Your task to perform on an android device: open app "Adobe Acrobat Reader: Edit PDF" (install if not already installed) and enter user name: "arthritis@inbox.com" and password: "scythes" Image 0: 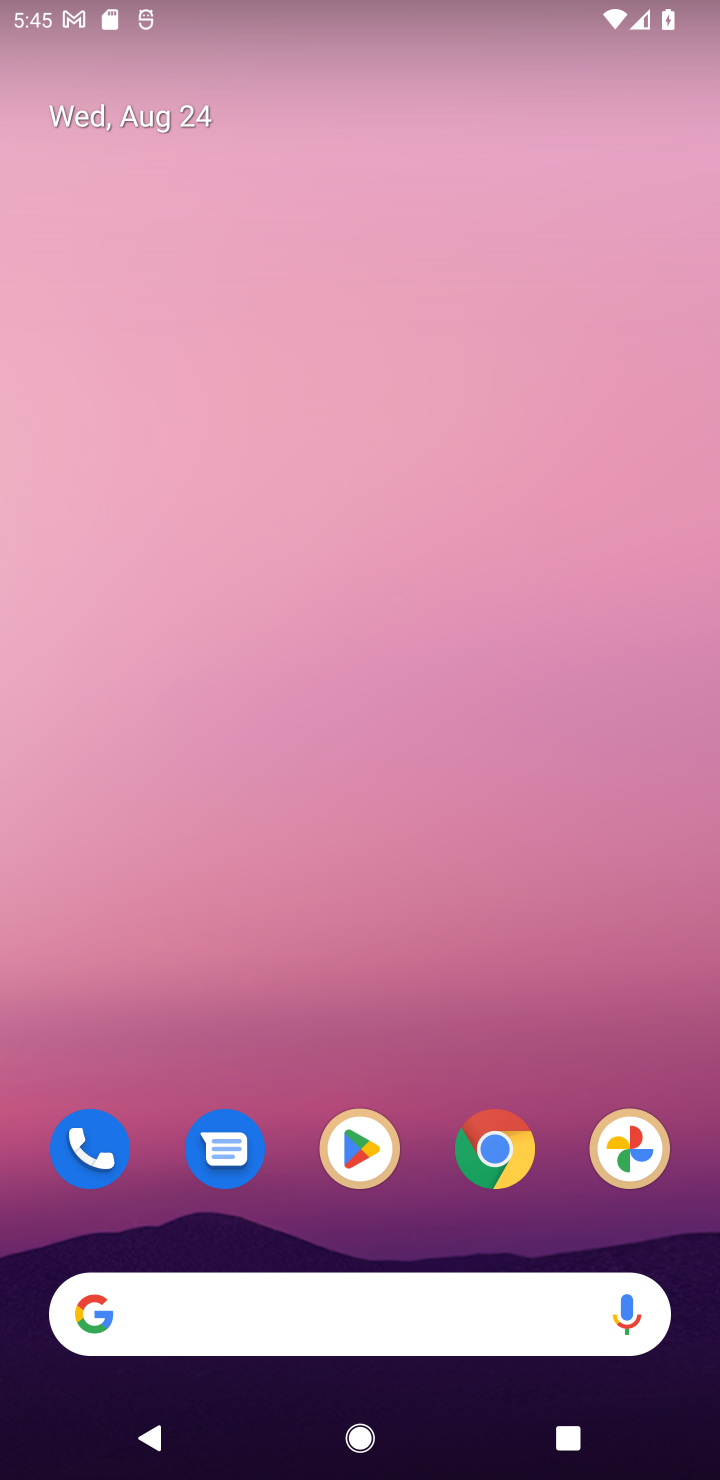
Step 0: click (363, 1150)
Your task to perform on an android device: open app "Adobe Acrobat Reader: Edit PDF" (install if not already installed) and enter user name: "arthritis@inbox.com" and password: "scythes" Image 1: 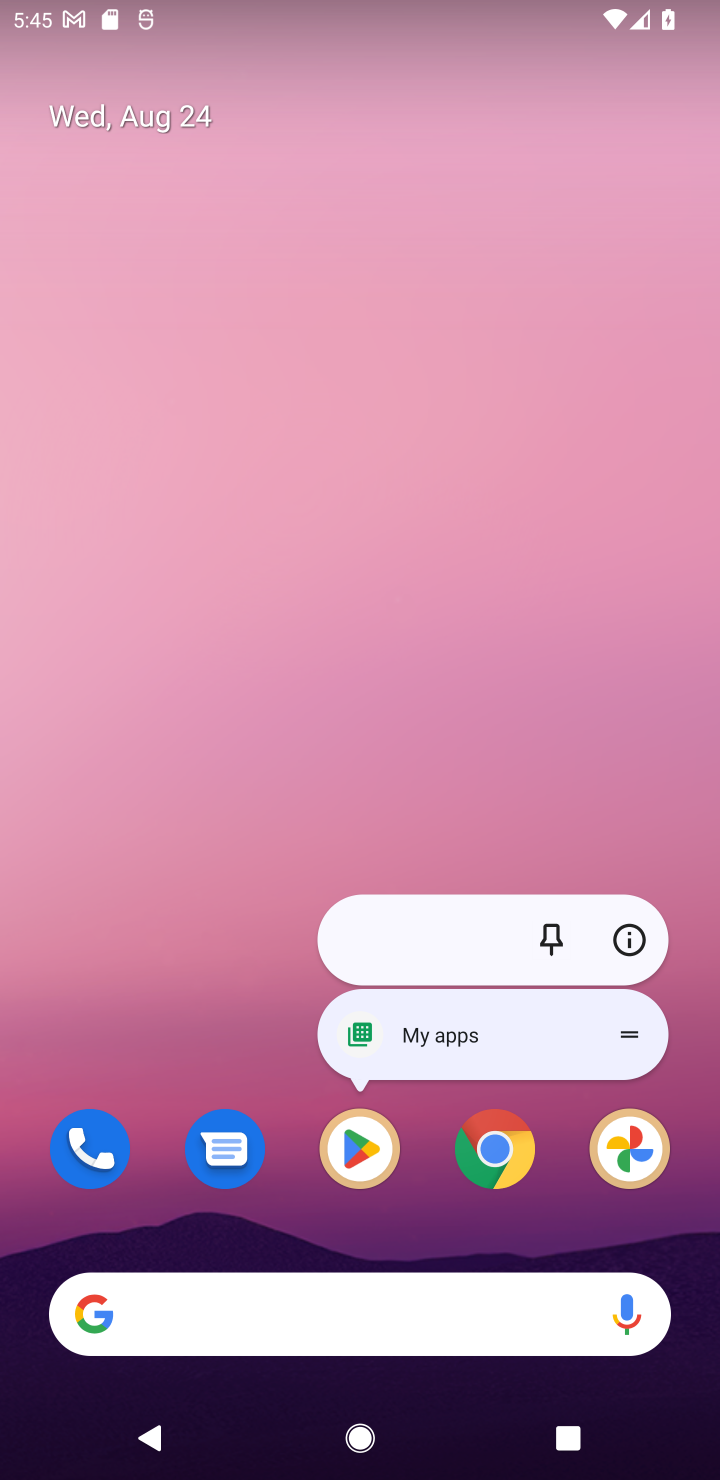
Step 1: click (363, 1154)
Your task to perform on an android device: open app "Adobe Acrobat Reader: Edit PDF" (install if not already installed) and enter user name: "arthritis@inbox.com" and password: "scythes" Image 2: 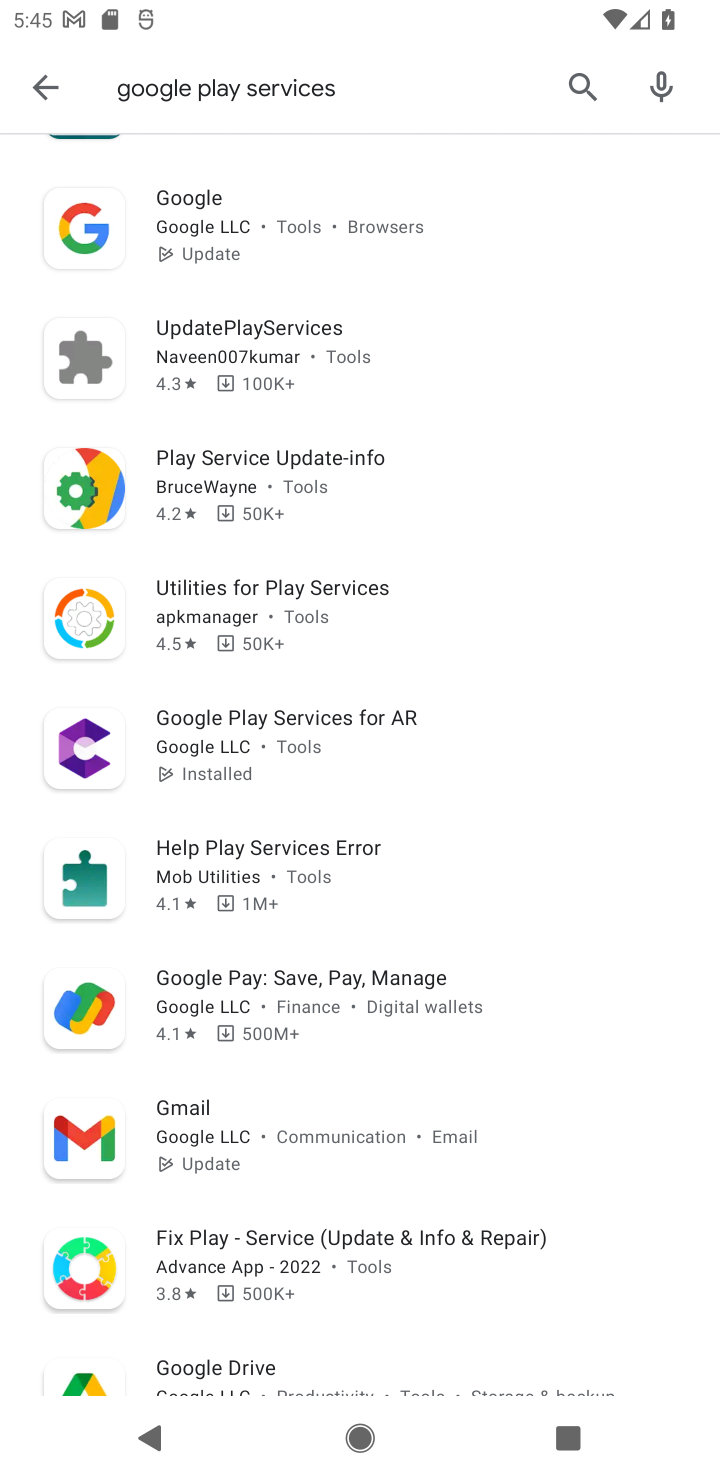
Step 2: click (575, 88)
Your task to perform on an android device: open app "Adobe Acrobat Reader: Edit PDF" (install if not already installed) and enter user name: "arthritis@inbox.com" and password: "scythes" Image 3: 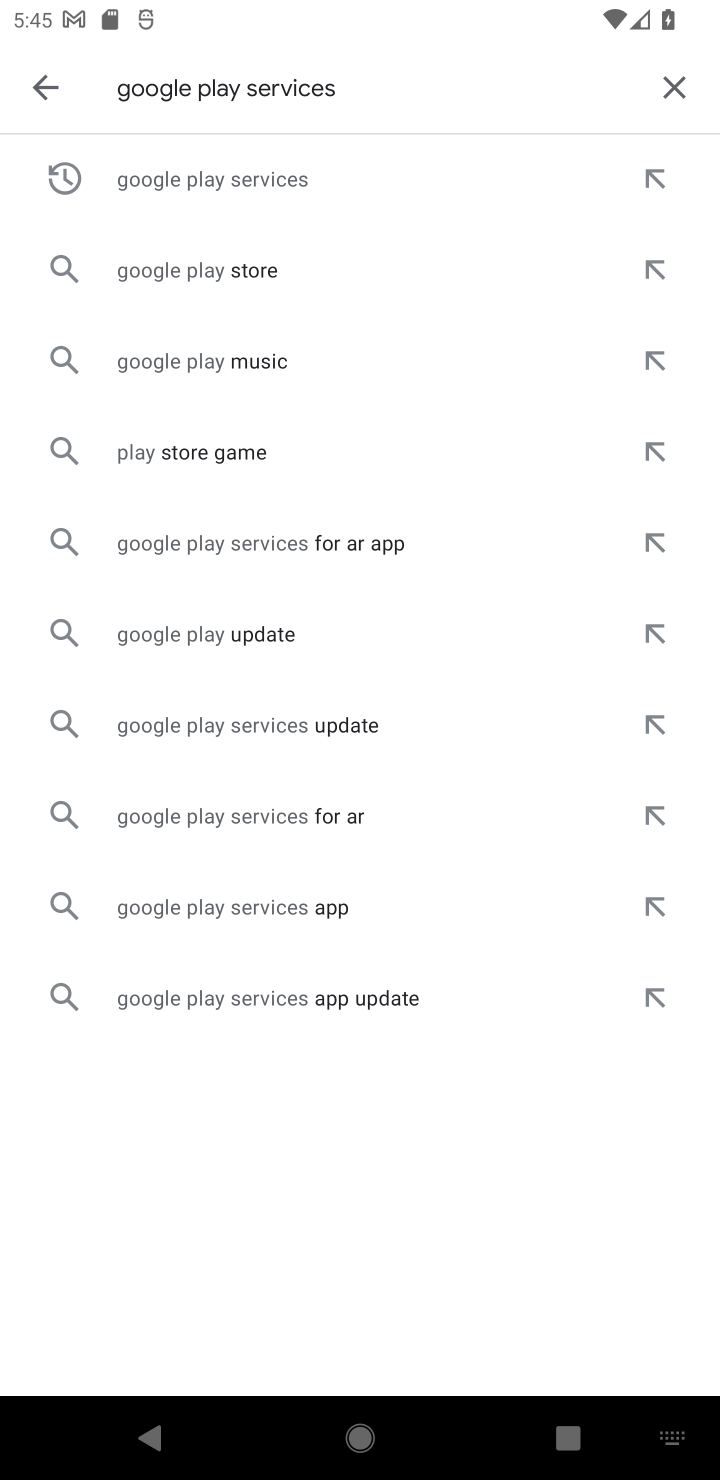
Step 3: click (677, 83)
Your task to perform on an android device: open app "Adobe Acrobat Reader: Edit PDF" (install if not already installed) and enter user name: "arthritis@inbox.com" and password: "scythes" Image 4: 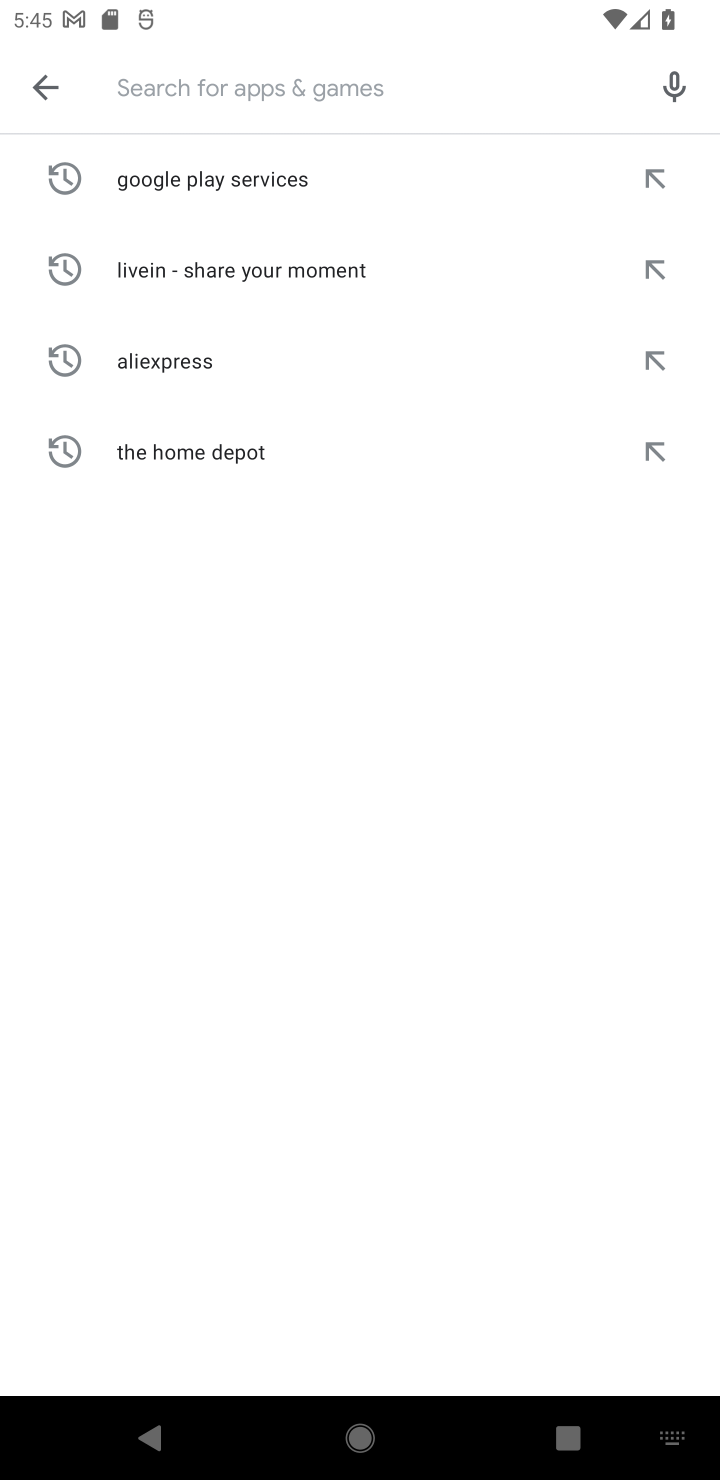
Step 4: type "Adobe Acrobat Reader: Edit PDF"
Your task to perform on an android device: open app "Adobe Acrobat Reader: Edit PDF" (install if not already installed) and enter user name: "arthritis@inbox.com" and password: "scythes" Image 5: 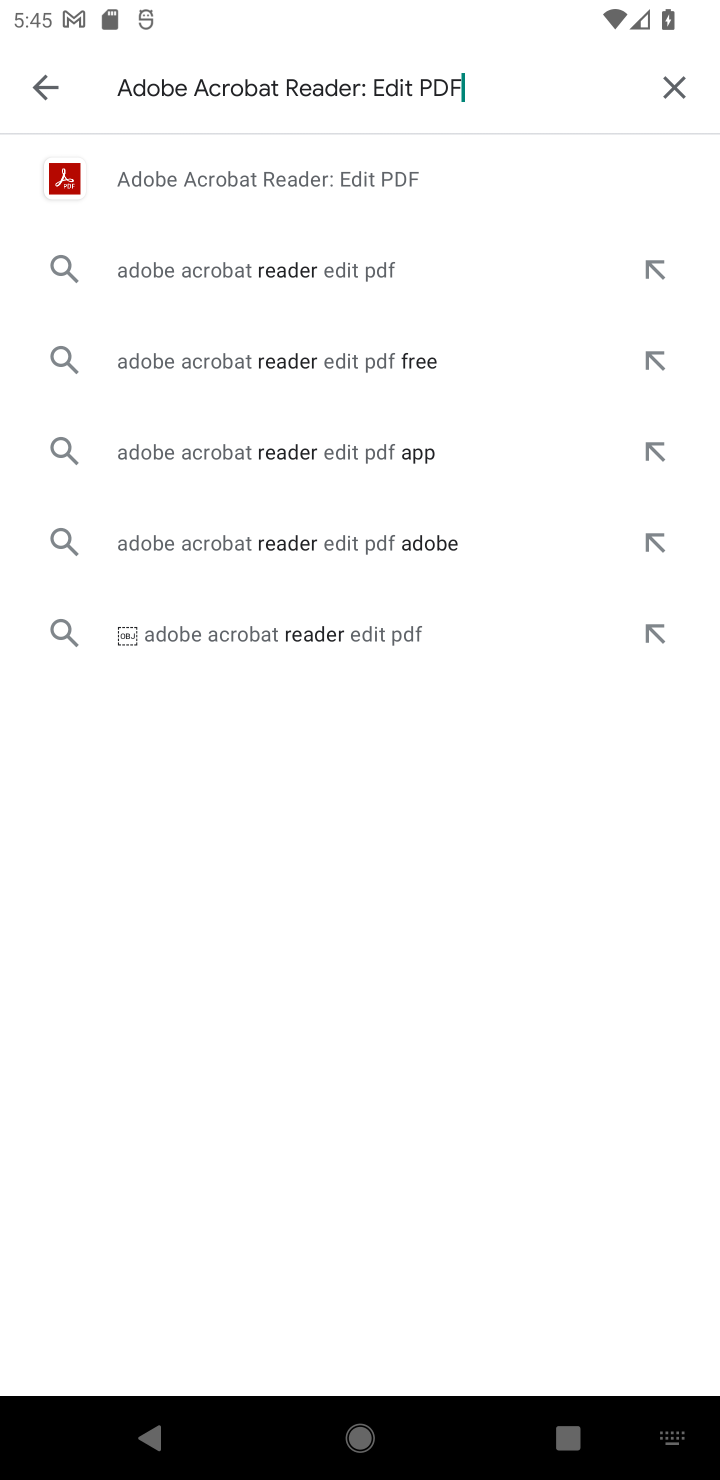
Step 5: click (354, 168)
Your task to perform on an android device: open app "Adobe Acrobat Reader: Edit PDF" (install if not already installed) and enter user name: "arthritis@inbox.com" and password: "scythes" Image 6: 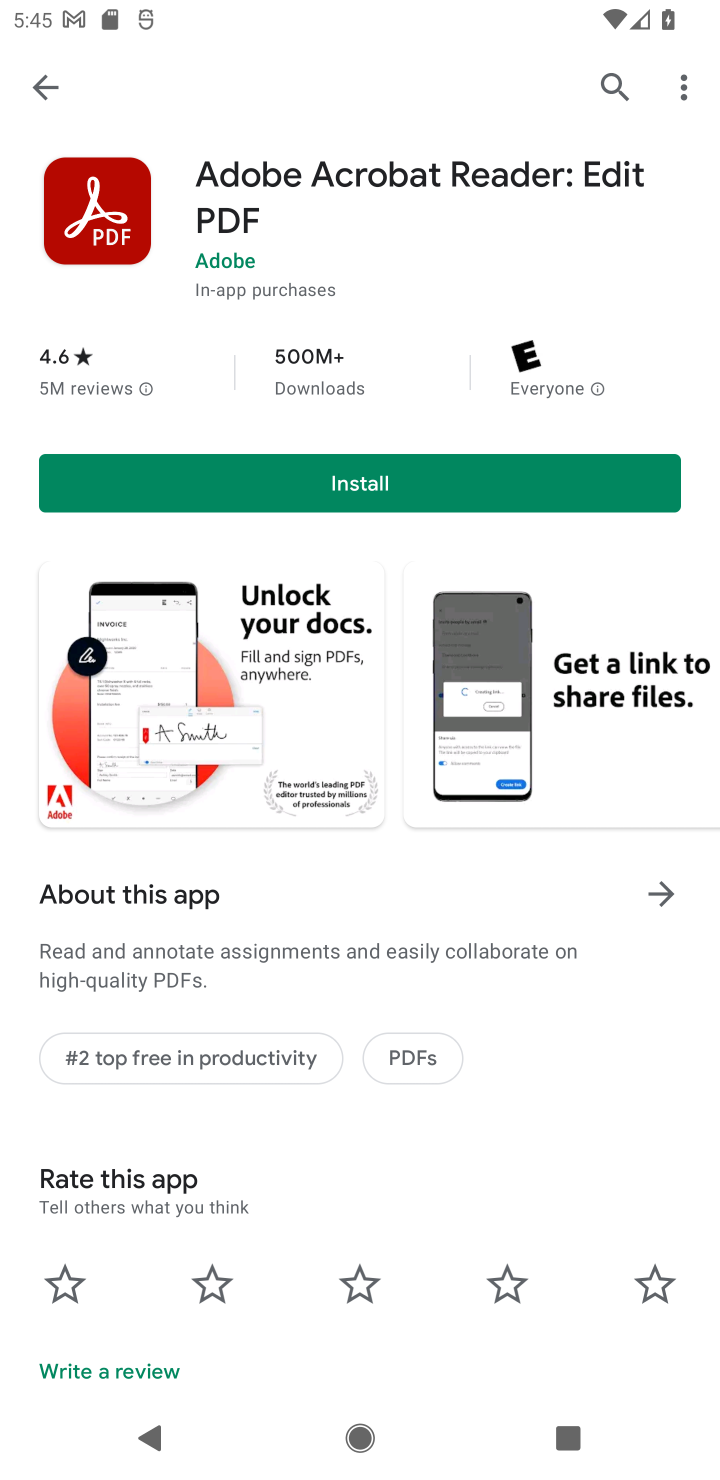
Step 6: click (367, 473)
Your task to perform on an android device: open app "Adobe Acrobat Reader: Edit PDF" (install if not already installed) and enter user name: "arthritis@inbox.com" and password: "scythes" Image 7: 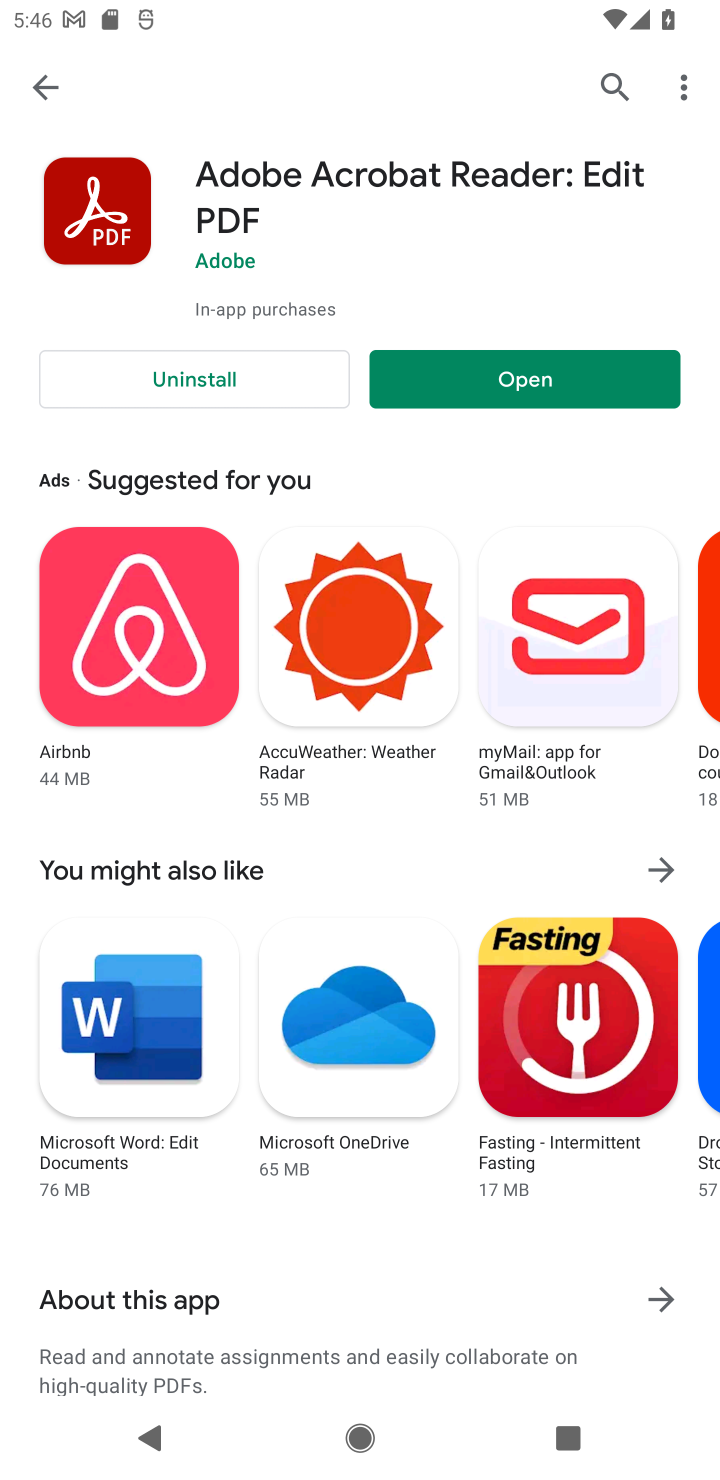
Step 7: click (556, 380)
Your task to perform on an android device: open app "Adobe Acrobat Reader: Edit PDF" (install if not already installed) and enter user name: "arthritis@inbox.com" and password: "scythes" Image 8: 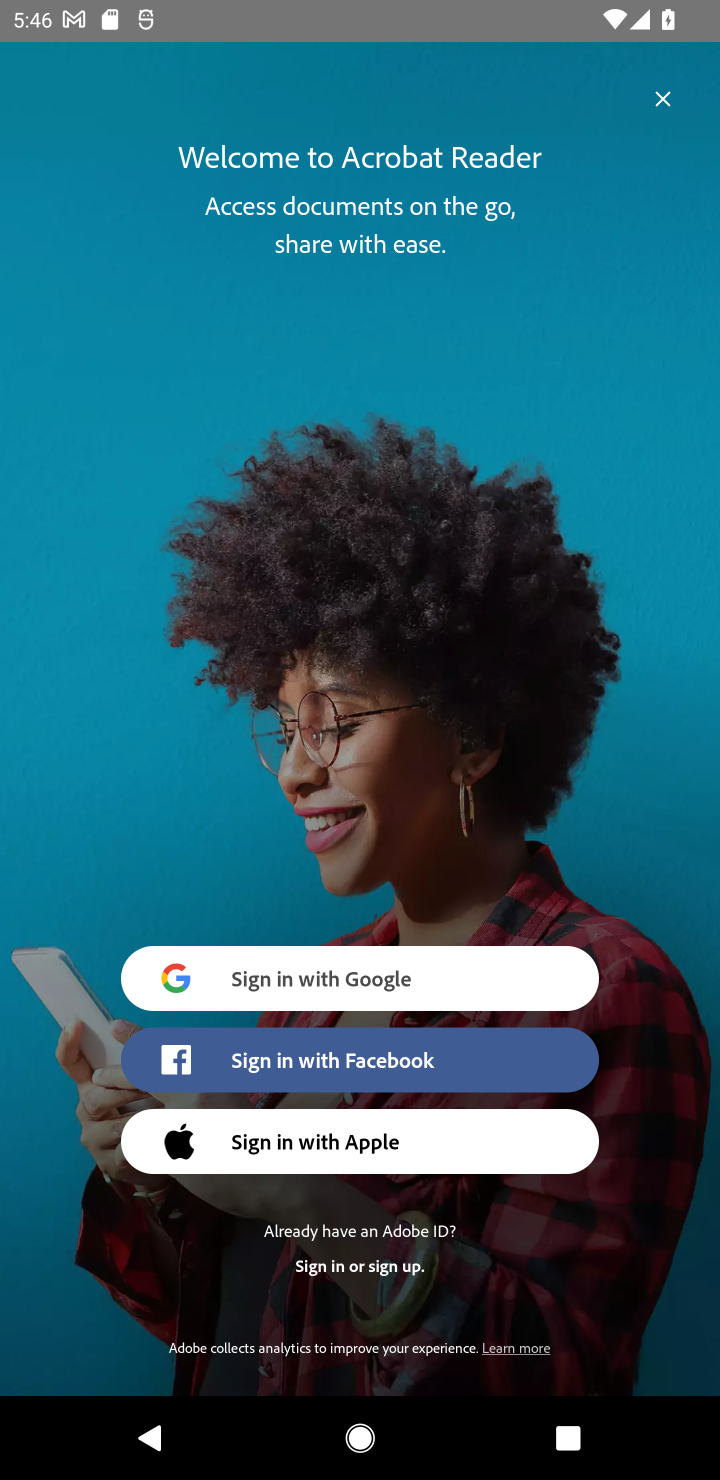
Step 8: click (334, 1269)
Your task to perform on an android device: open app "Adobe Acrobat Reader: Edit PDF" (install if not already installed) and enter user name: "arthritis@inbox.com" and password: "scythes" Image 9: 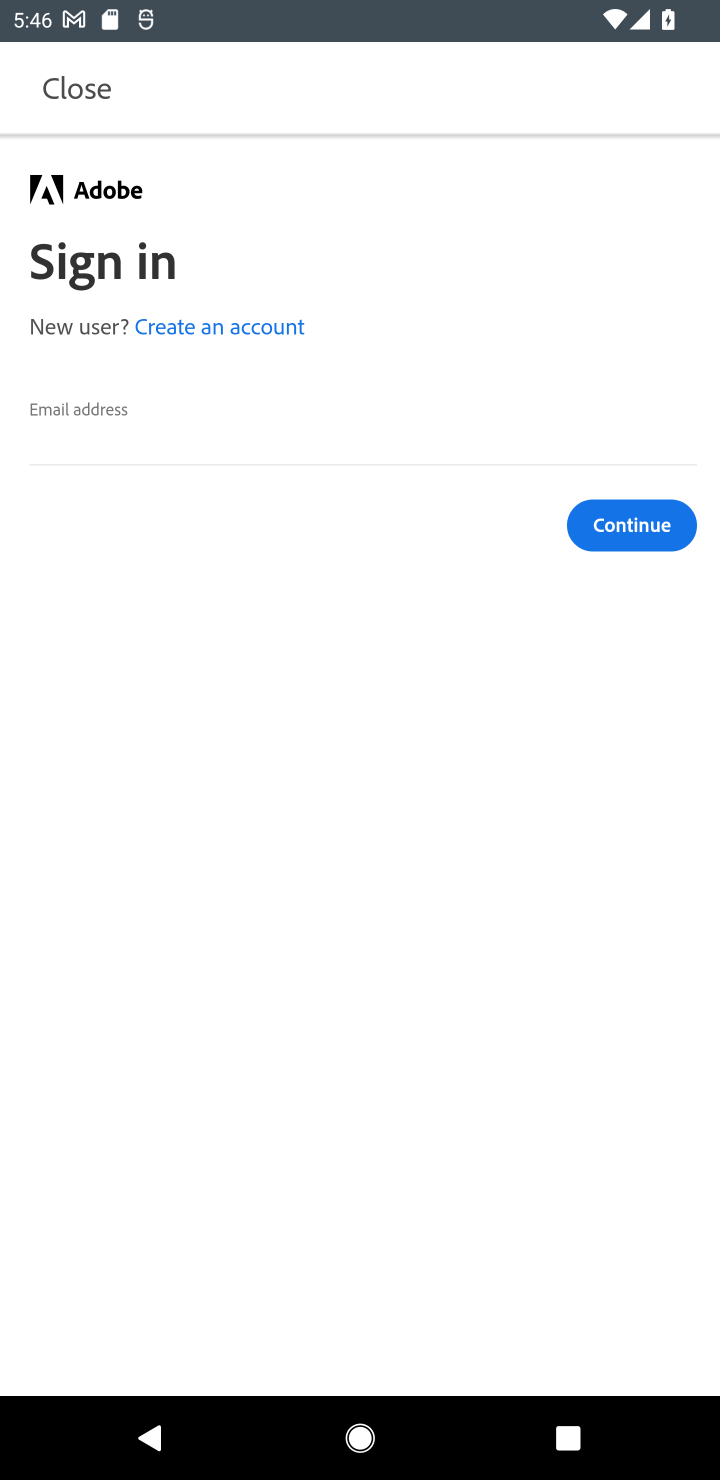
Step 9: click (77, 415)
Your task to perform on an android device: open app "Adobe Acrobat Reader: Edit PDF" (install if not already installed) and enter user name: "arthritis@inbox.com" and password: "scythes" Image 10: 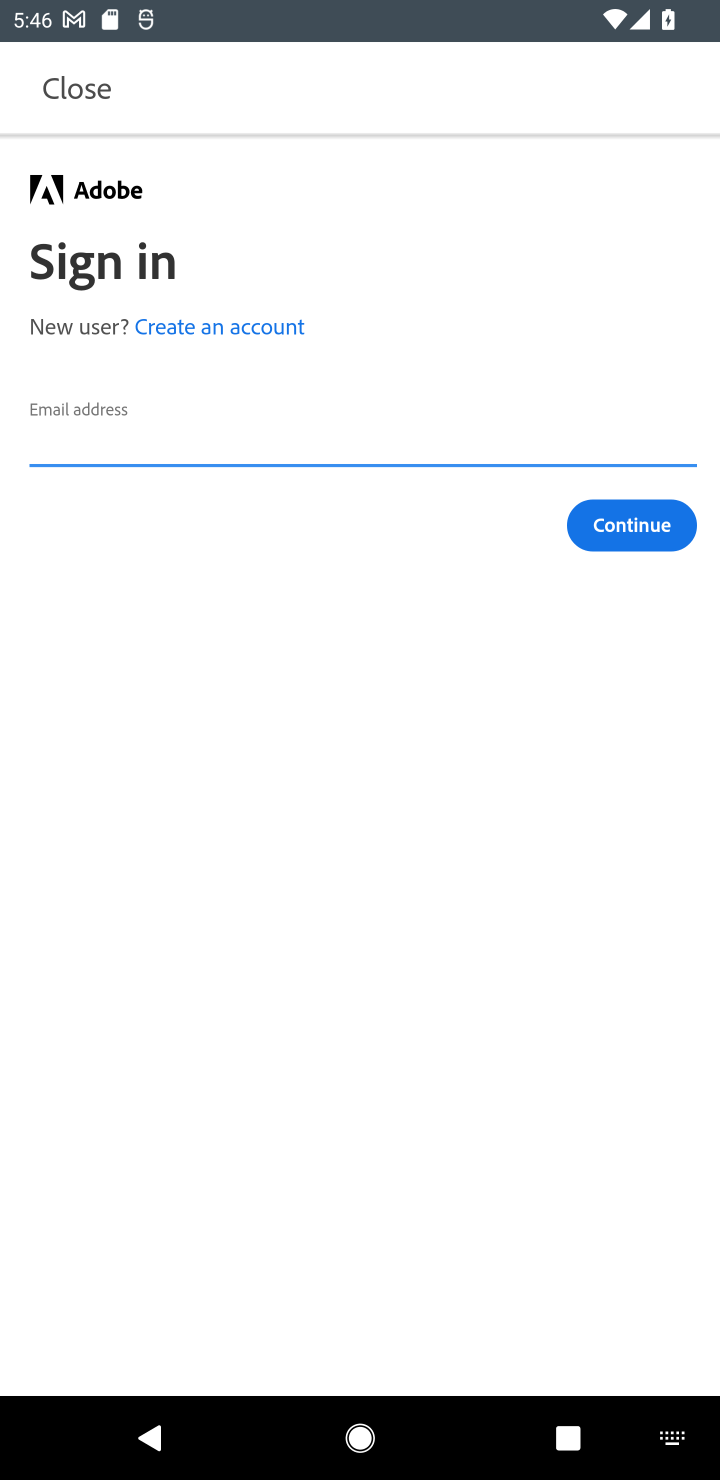
Step 10: type "arthritis@inbox.com"
Your task to perform on an android device: open app "Adobe Acrobat Reader: Edit PDF" (install if not already installed) and enter user name: "arthritis@inbox.com" and password: "scythes" Image 11: 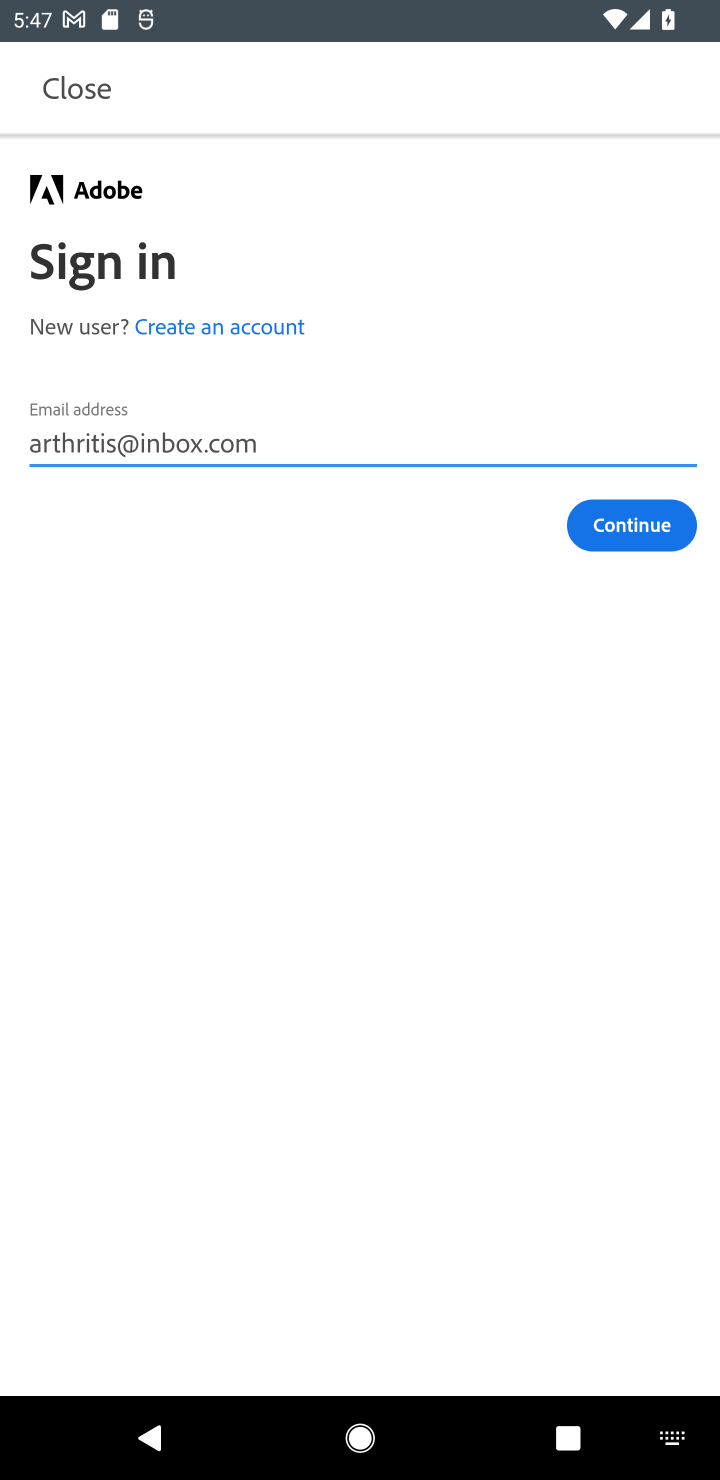
Step 11: click (618, 521)
Your task to perform on an android device: open app "Adobe Acrobat Reader: Edit PDF" (install if not already installed) and enter user name: "arthritis@inbox.com" and password: "scythes" Image 12: 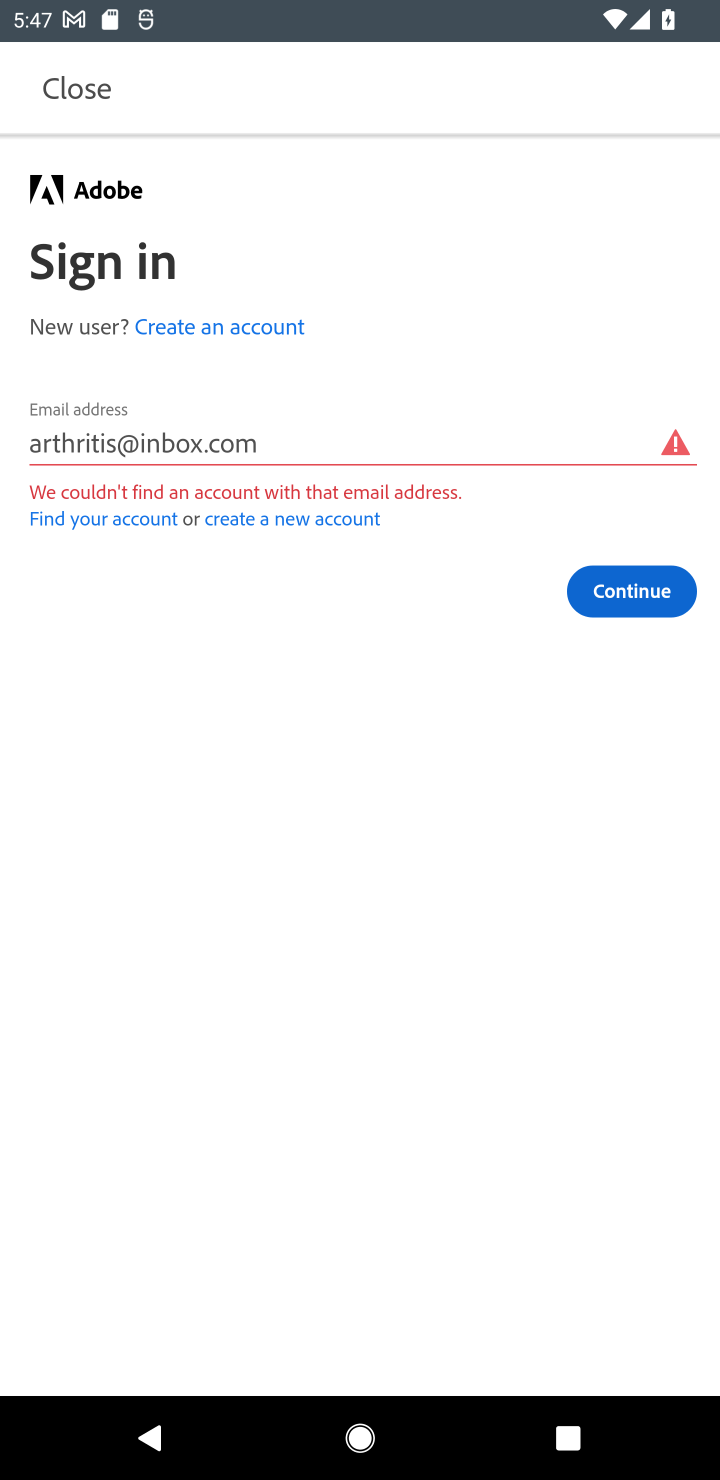
Step 12: task complete